Your task to perform on an android device: turn vacation reply on in the gmail app Image 0: 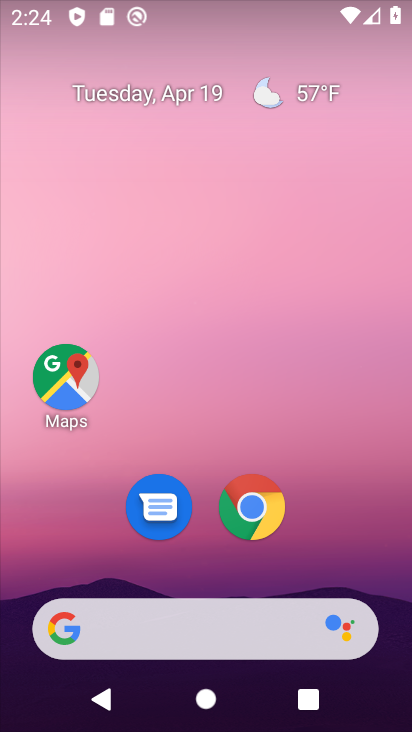
Step 0: drag from (224, 577) to (208, 188)
Your task to perform on an android device: turn vacation reply on in the gmail app Image 1: 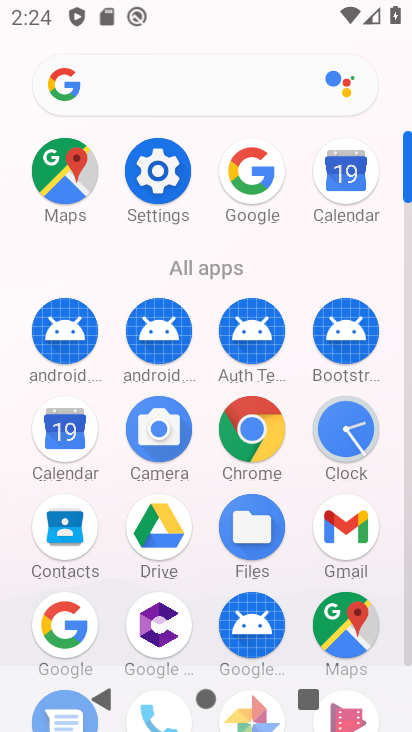
Step 1: click (361, 530)
Your task to perform on an android device: turn vacation reply on in the gmail app Image 2: 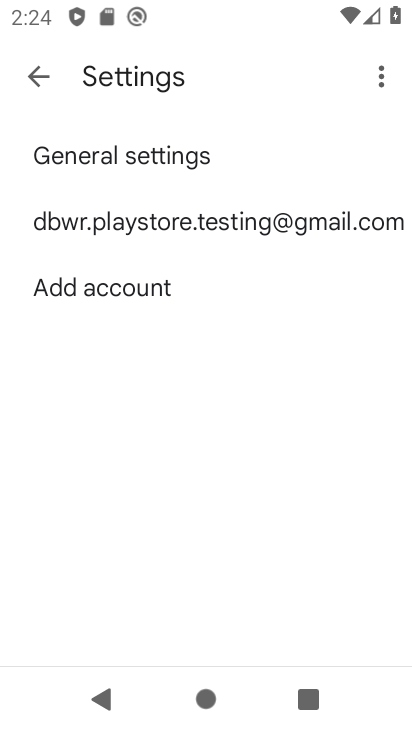
Step 2: click (161, 224)
Your task to perform on an android device: turn vacation reply on in the gmail app Image 3: 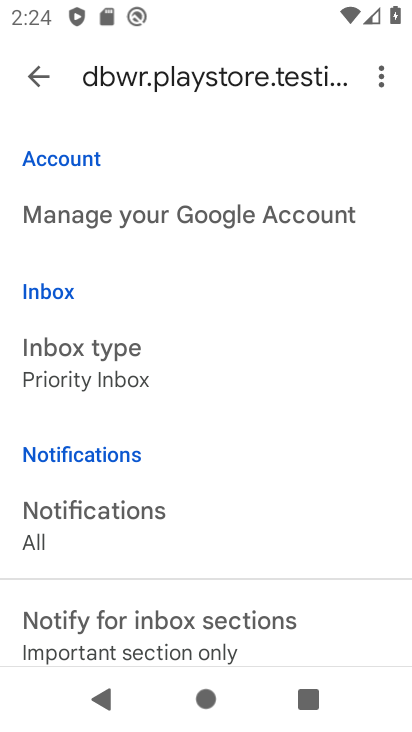
Step 3: drag from (295, 626) to (255, 172)
Your task to perform on an android device: turn vacation reply on in the gmail app Image 4: 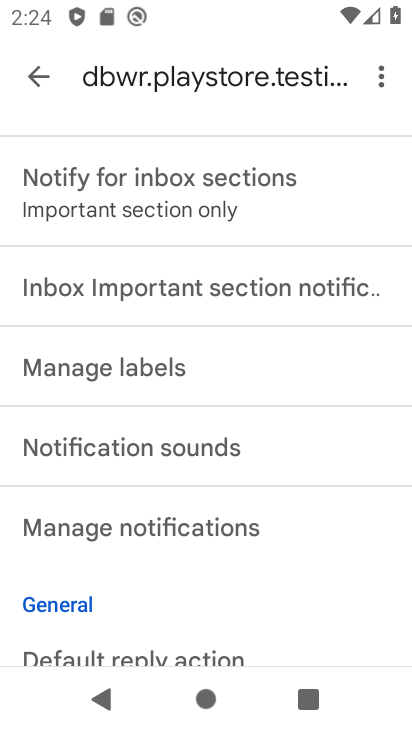
Step 4: drag from (270, 538) to (210, 122)
Your task to perform on an android device: turn vacation reply on in the gmail app Image 5: 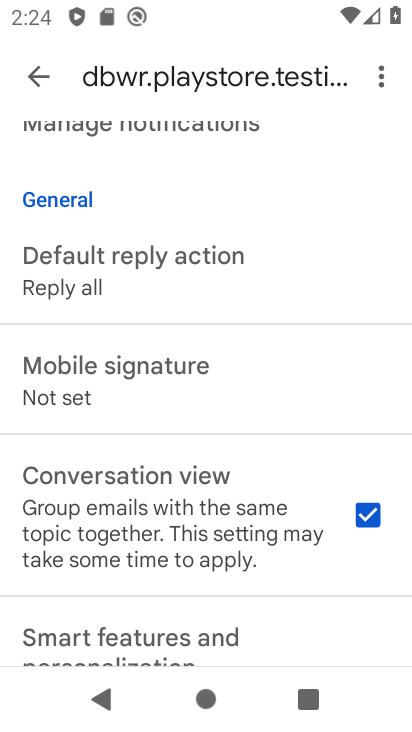
Step 5: drag from (235, 588) to (204, 119)
Your task to perform on an android device: turn vacation reply on in the gmail app Image 6: 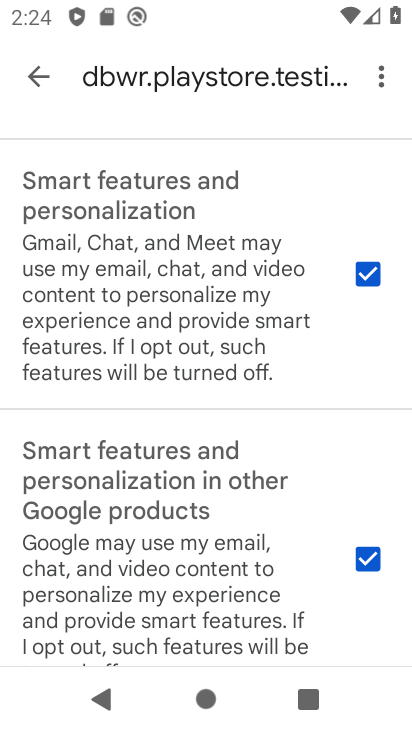
Step 6: drag from (236, 524) to (219, 141)
Your task to perform on an android device: turn vacation reply on in the gmail app Image 7: 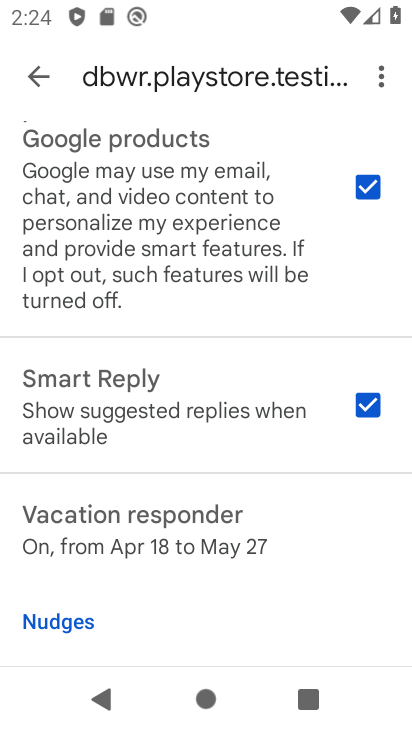
Step 7: click (237, 525)
Your task to perform on an android device: turn vacation reply on in the gmail app Image 8: 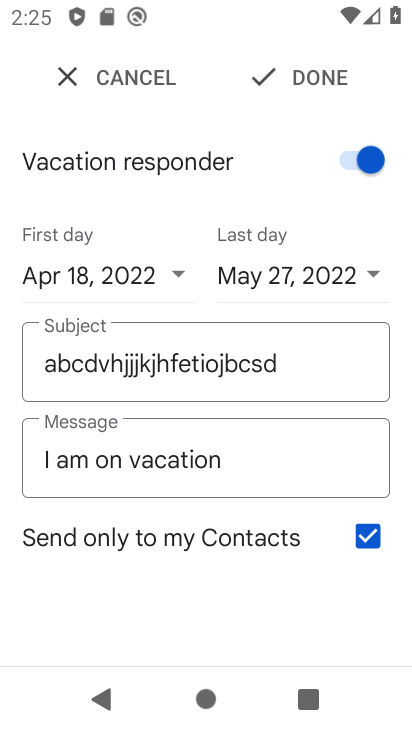
Step 8: click (314, 82)
Your task to perform on an android device: turn vacation reply on in the gmail app Image 9: 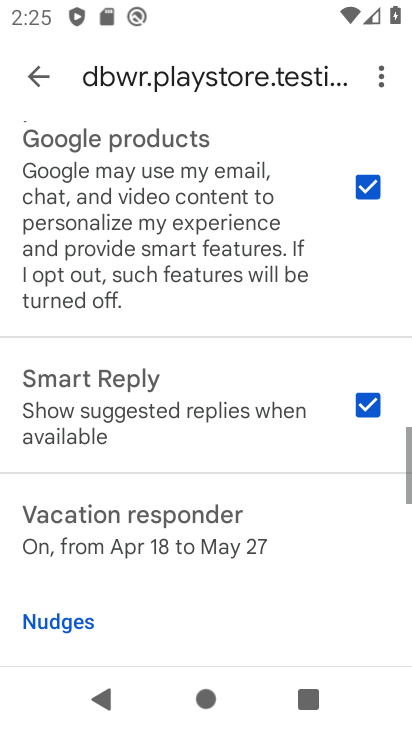
Step 9: task complete